Your task to perform on an android device: Show me popular games on the Play Store Image 0: 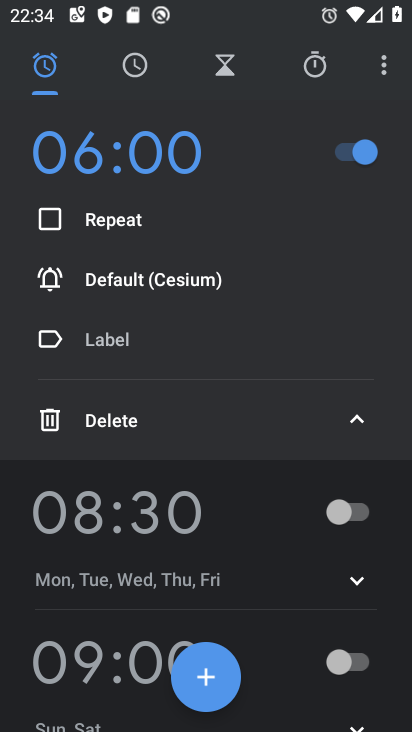
Step 0: press home button
Your task to perform on an android device: Show me popular games on the Play Store Image 1: 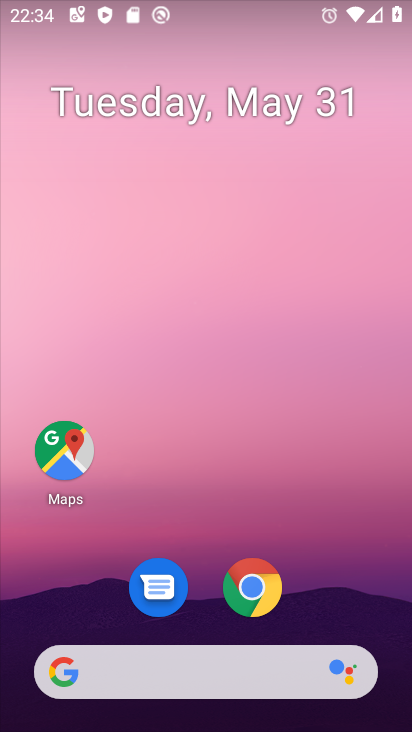
Step 1: drag from (383, 619) to (347, 230)
Your task to perform on an android device: Show me popular games on the Play Store Image 2: 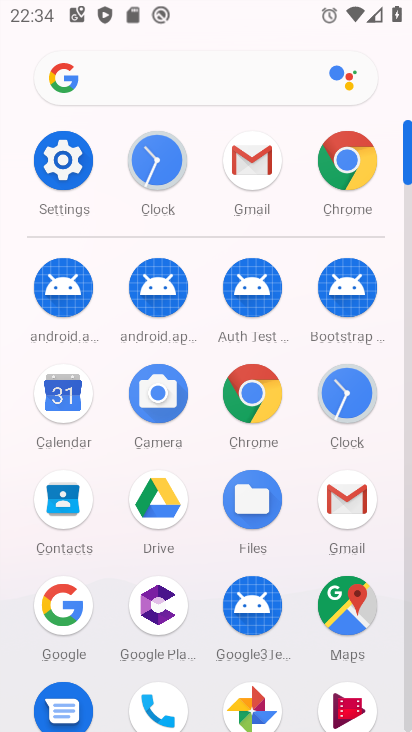
Step 2: drag from (290, 566) to (291, 373)
Your task to perform on an android device: Show me popular games on the Play Store Image 3: 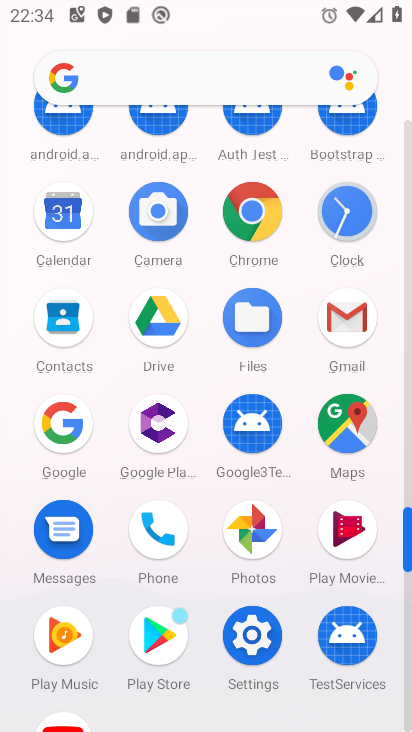
Step 3: drag from (293, 577) to (301, 405)
Your task to perform on an android device: Show me popular games on the Play Store Image 4: 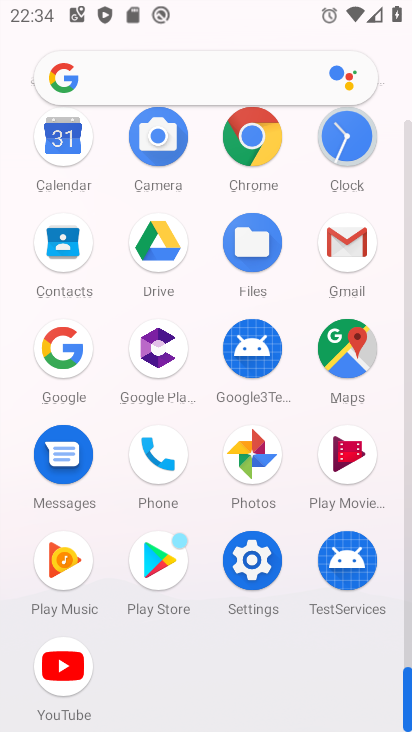
Step 4: click (157, 574)
Your task to perform on an android device: Show me popular games on the Play Store Image 5: 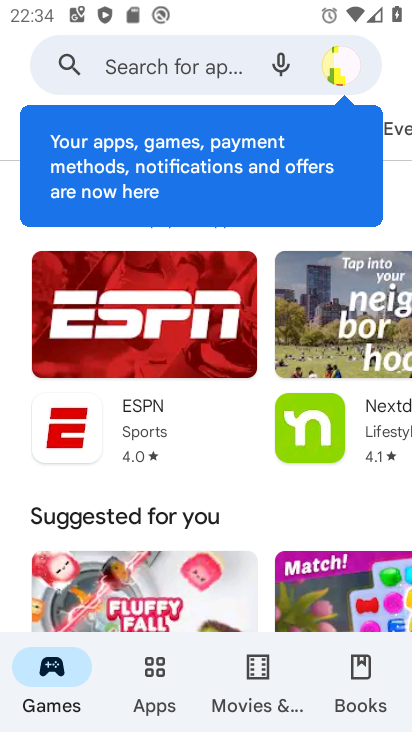
Step 5: task complete